Your task to perform on an android device: Set the phone to "Do not disturb". Image 0: 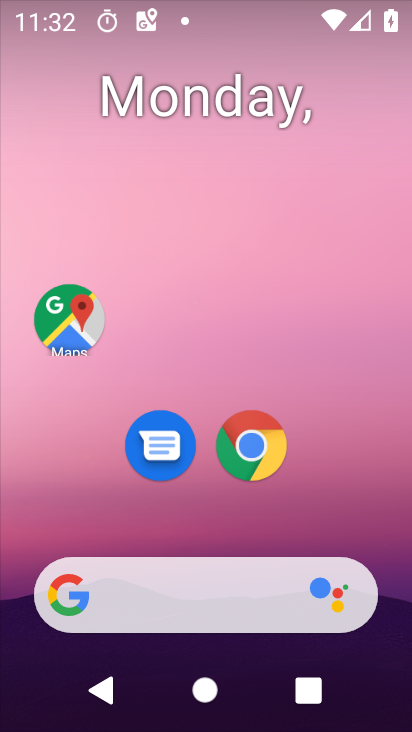
Step 0: drag from (196, 12) to (222, 519)
Your task to perform on an android device: Set the phone to "Do not disturb". Image 1: 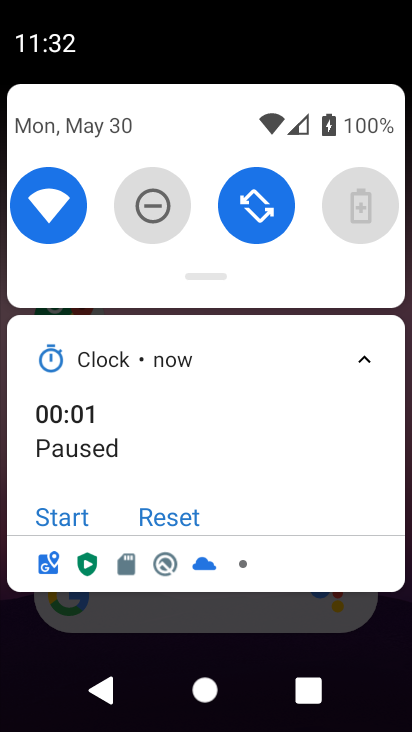
Step 1: click (167, 204)
Your task to perform on an android device: Set the phone to "Do not disturb". Image 2: 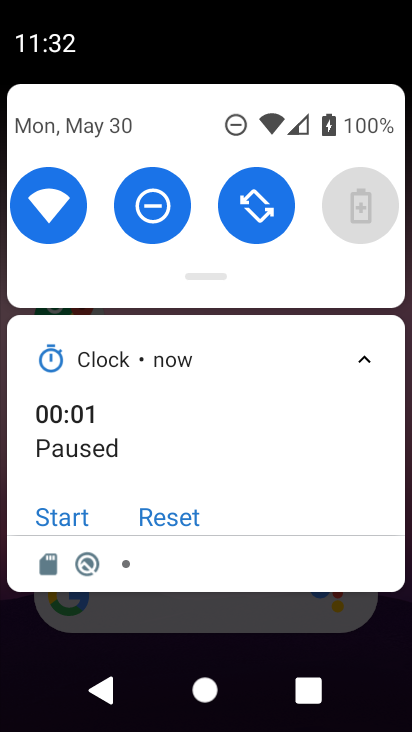
Step 2: task complete